Your task to perform on an android device: Search for the best selling phone on AliExpress Image 0: 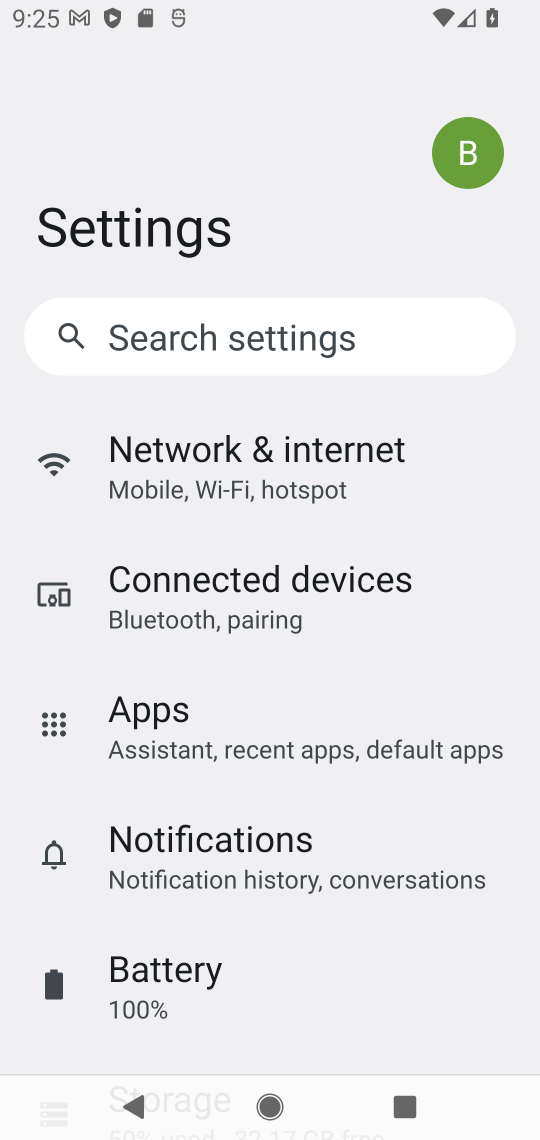
Step 0: press home button
Your task to perform on an android device: Search for the best selling phone on AliExpress Image 1: 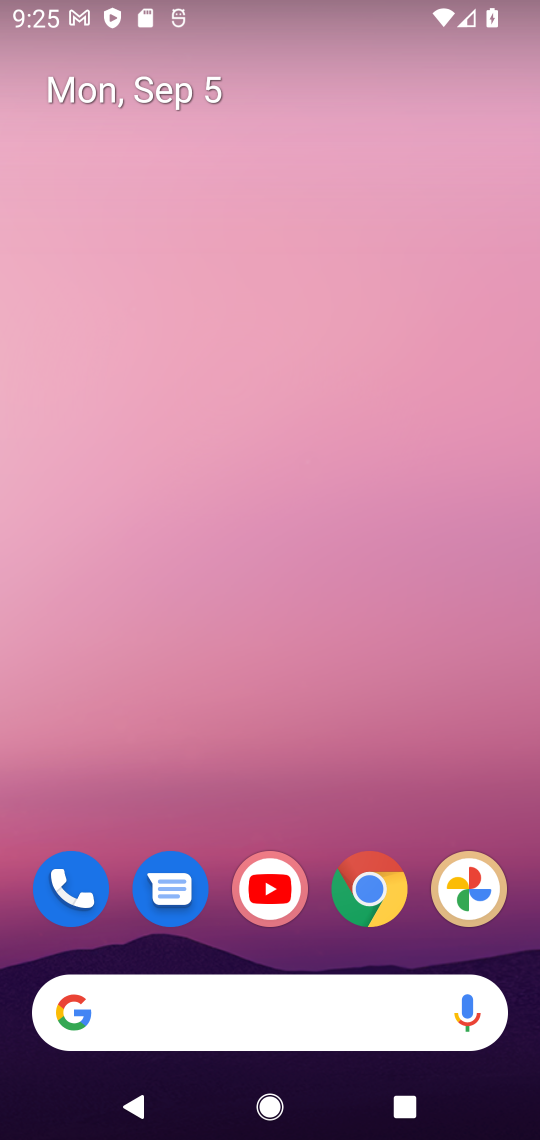
Step 1: click (307, 997)
Your task to perform on an android device: Search for the best selling phone on AliExpress Image 2: 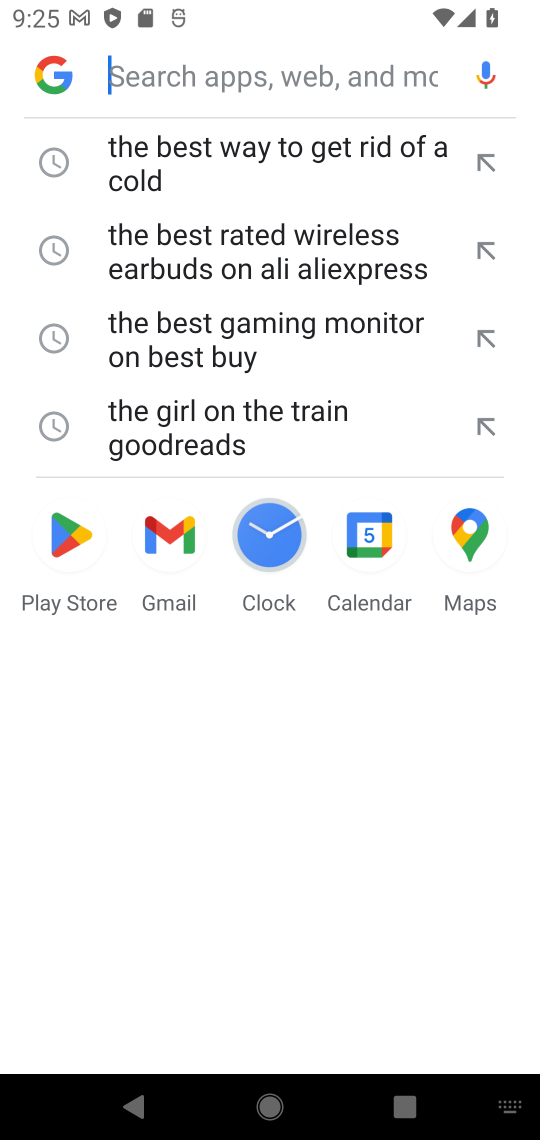
Step 2: type "the best selling phone on AliEx"
Your task to perform on an android device: Search for the best selling phone on AliExpress Image 3: 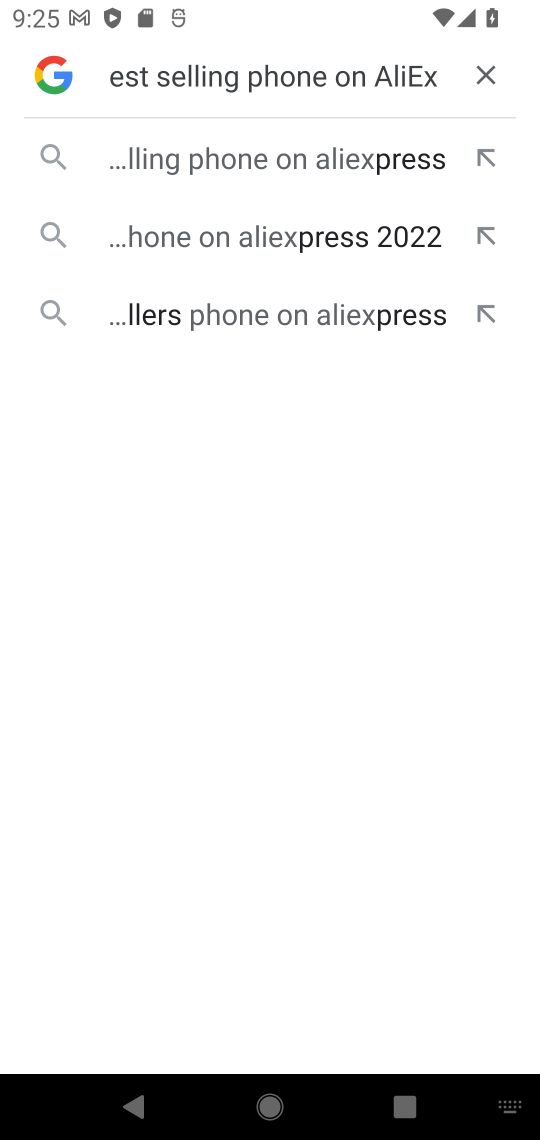
Step 3: click (344, 157)
Your task to perform on an android device: Search for the best selling phone on AliExpress Image 4: 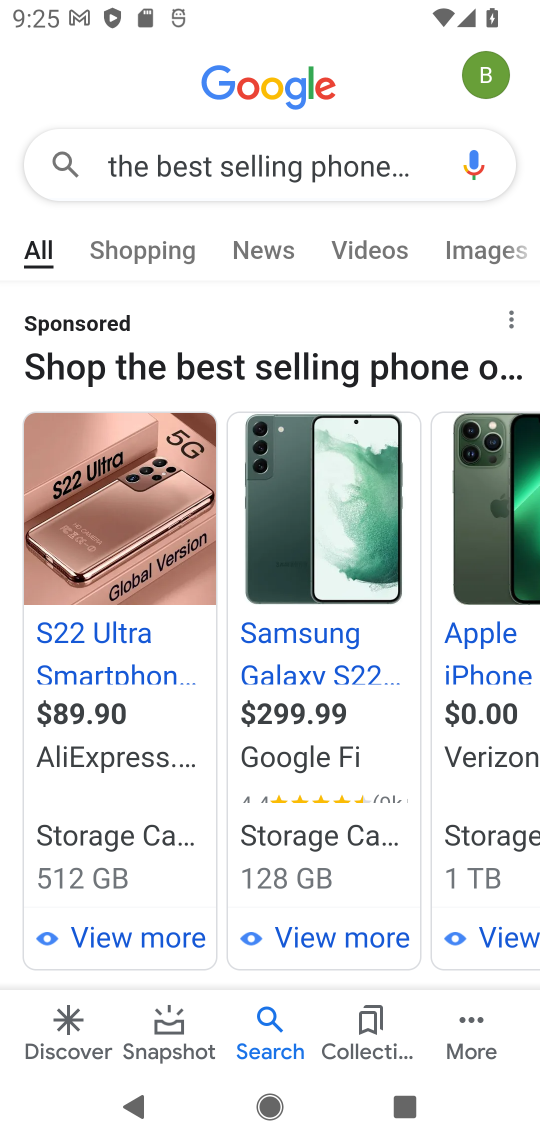
Step 4: task complete